Your task to perform on an android device: open chrome privacy settings Image 0: 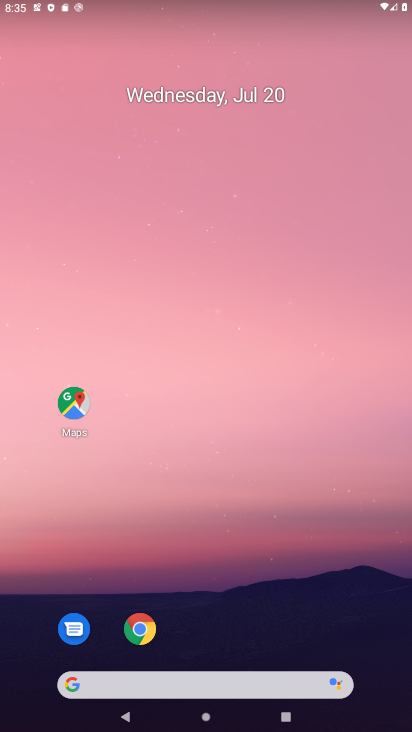
Step 0: drag from (253, 636) to (228, 153)
Your task to perform on an android device: open chrome privacy settings Image 1: 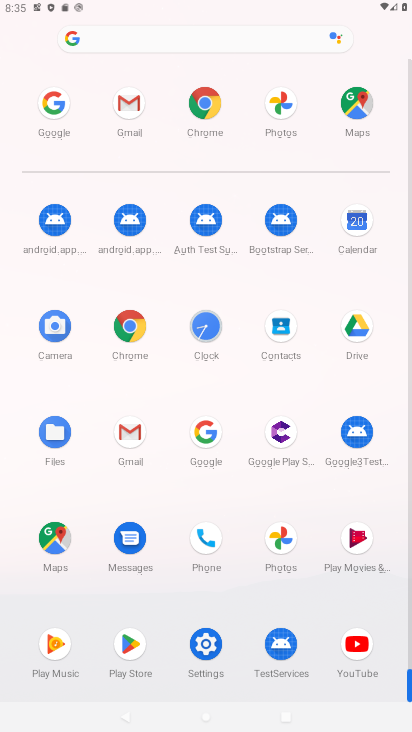
Step 1: click (209, 644)
Your task to perform on an android device: open chrome privacy settings Image 2: 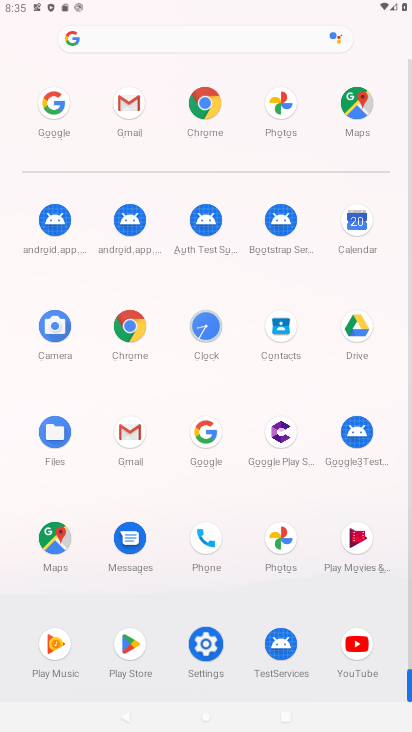
Step 2: click (207, 645)
Your task to perform on an android device: open chrome privacy settings Image 3: 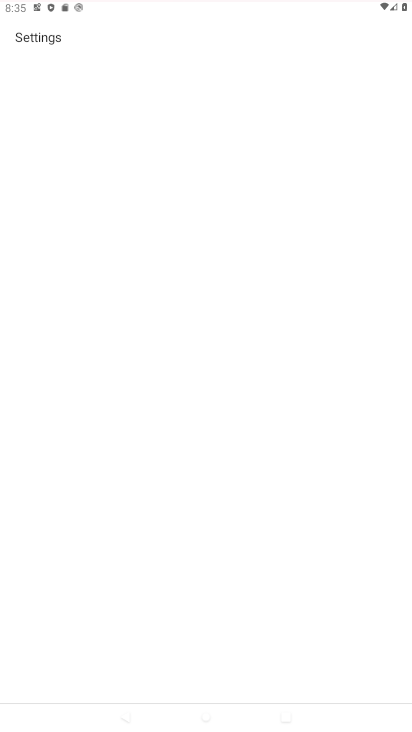
Step 3: click (210, 644)
Your task to perform on an android device: open chrome privacy settings Image 4: 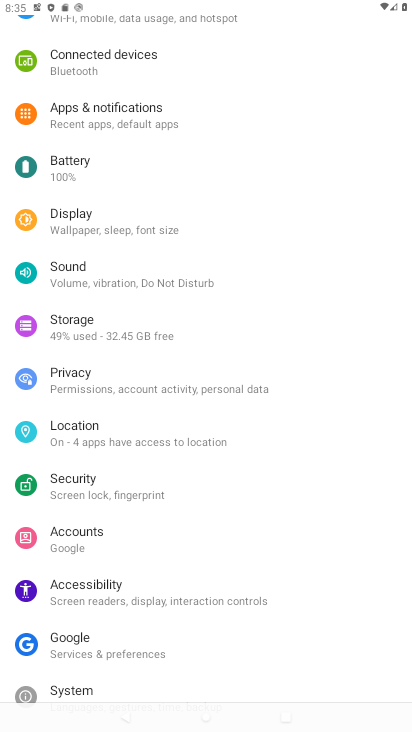
Step 4: press back button
Your task to perform on an android device: open chrome privacy settings Image 5: 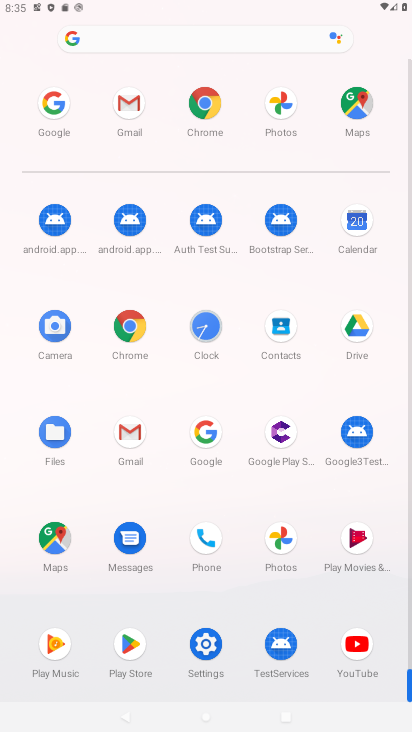
Step 5: click (208, 107)
Your task to perform on an android device: open chrome privacy settings Image 6: 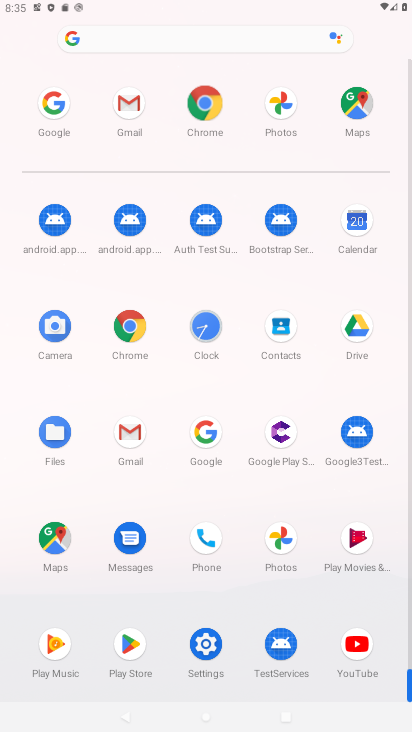
Step 6: click (212, 107)
Your task to perform on an android device: open chrome privacy settings Image 7: 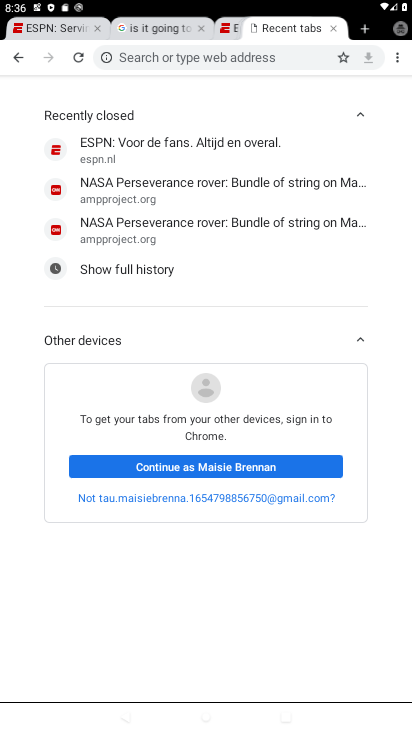
Step 7: drag from (392, 56) to (290, 266)
Your task to perform on an android device: open chrome privacy settings Image 8: 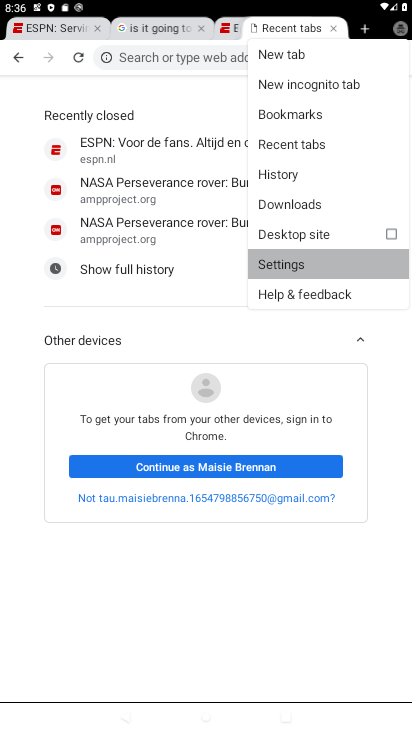
Step 8: click (293, 264)
Your task to perform on an android device: open chrome privacy settings Image 9: 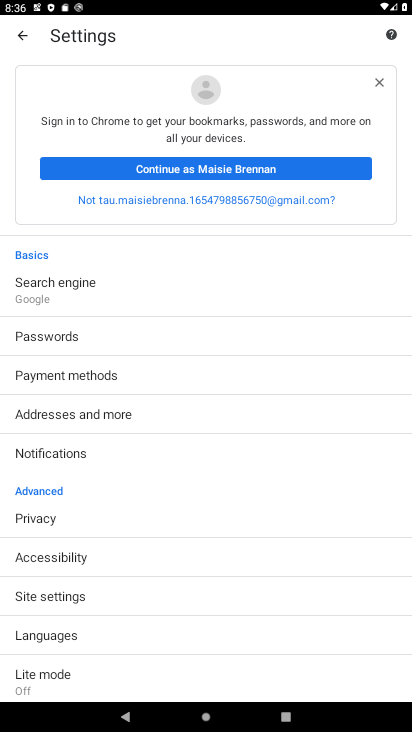
Step 9: drag from (56, 586) to (56, 292)
Your task to perform on an android device: open chrome privacy settings Image 10: 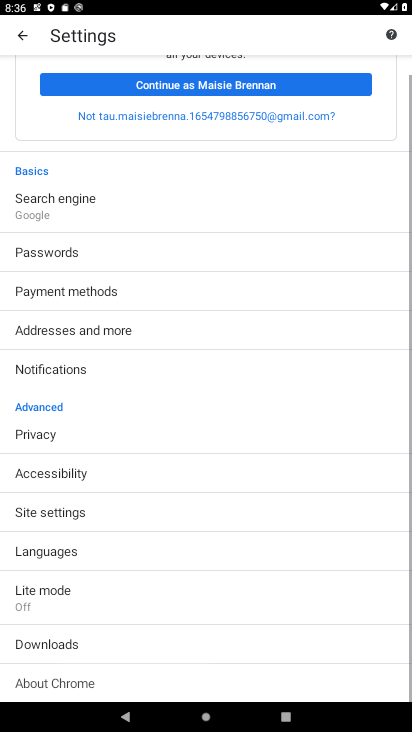
Step 10: drag from (90, 484) to (98, 332)
Your task to perform on an android device: open chrome privacy settings Image 11: 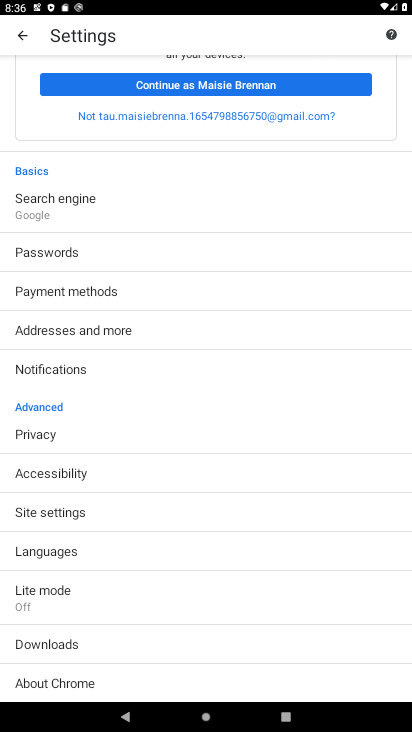
Step 11: click (39, 430)
Your task to perform on an android device: open chrome privacy settings Image 12: 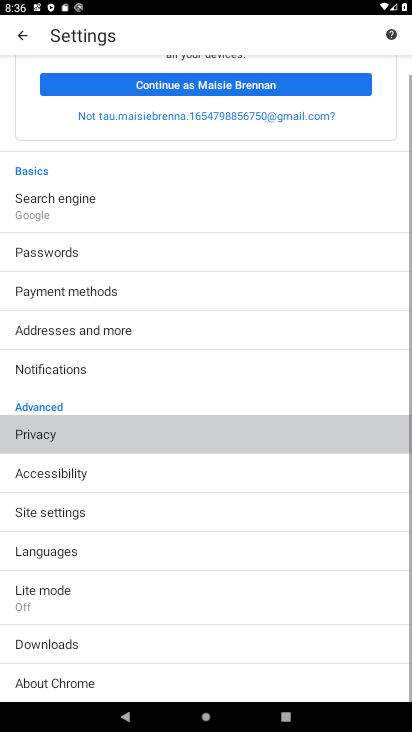
Step 12: click (39, 434)
Your task to perform on an android device: open chrome privacy settings Image 13: 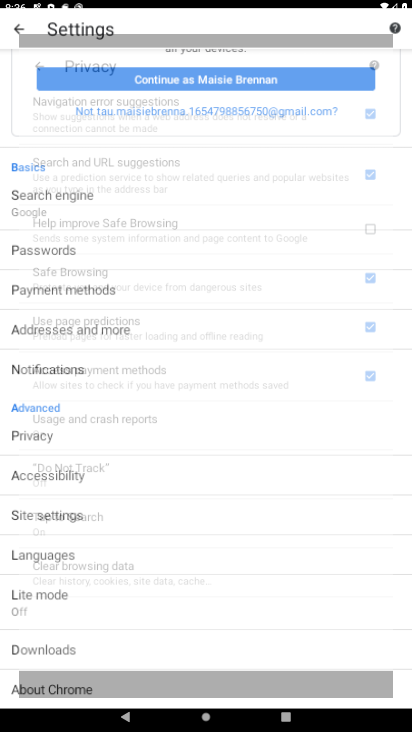
Step 13: click (39, 434)
Your task to perform on an android device: open chrome privacy settings Image 14: 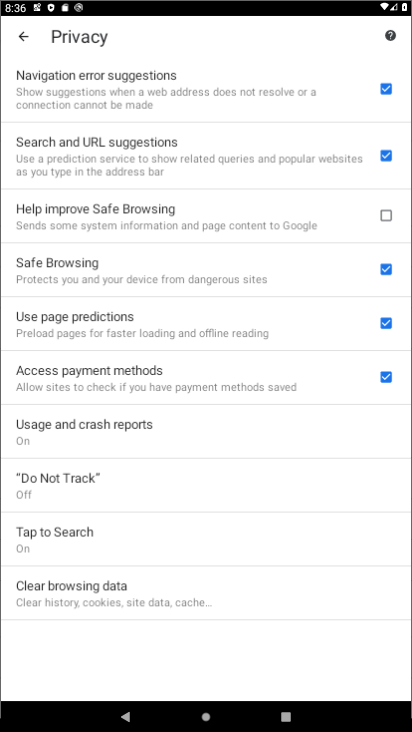
Step 14: click (38, 430)
Your task to perform on an android device: open chrome privacy settings Image 15: 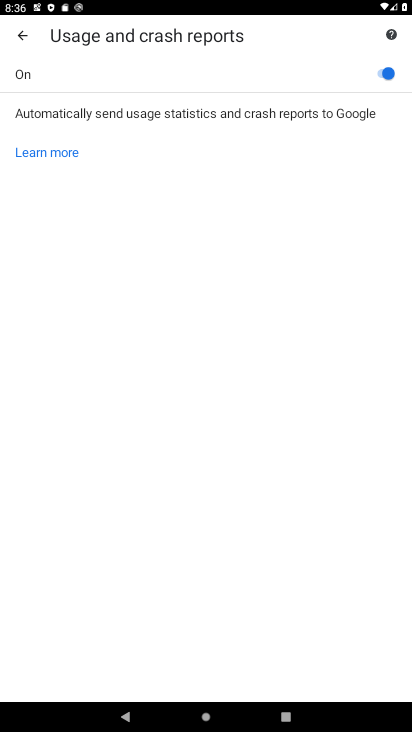
Step 15: click (17, 37)
Your task to perform on an android device: open chrome privacy settings Image 16: 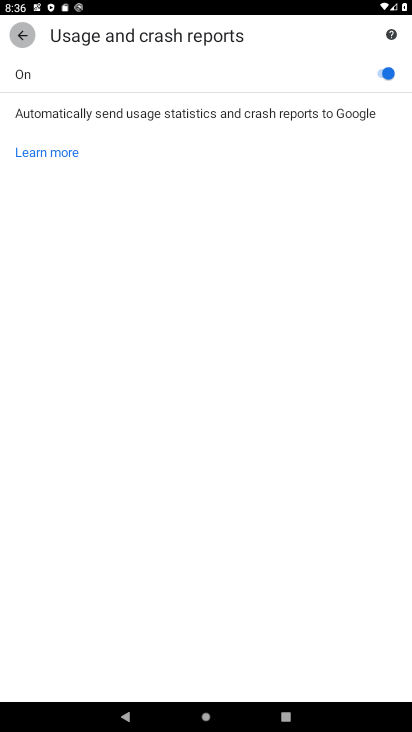
Step 16: click (17, 37)
Your task to perform on an android device: open chrome privacy settings Image 17: 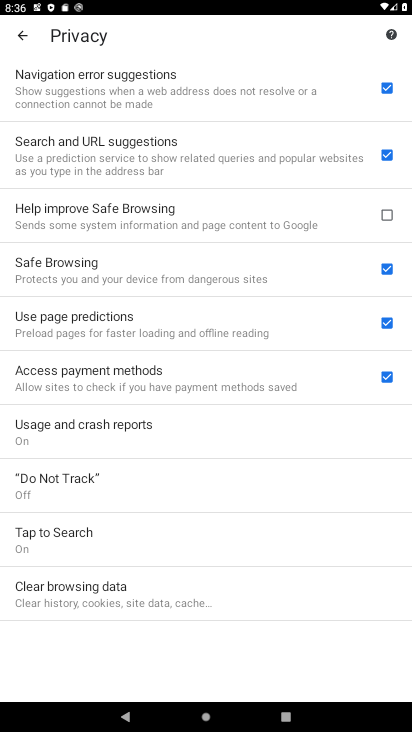
Step 17: task complete